Your task to perform on an android device: turn on sleep mode Image 0: 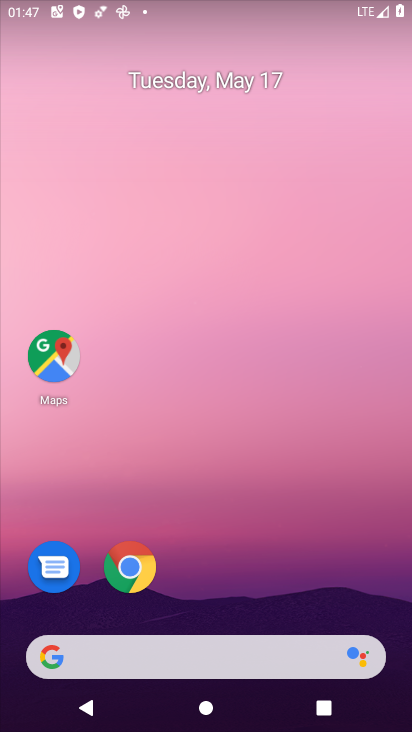
Step 0: drag from (398, 618) to (346, 13)
Your task to perform on an android device: turn on sleep mode Image 1: 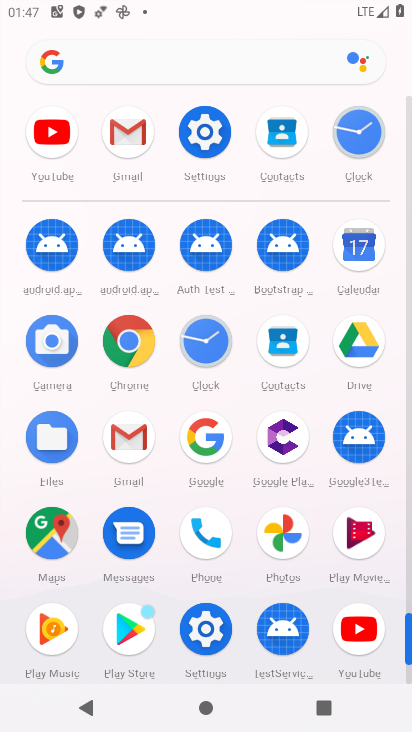
Step 1: click (207, 627)
Your task to perform on an android device: turn on sleep mode Image 2: 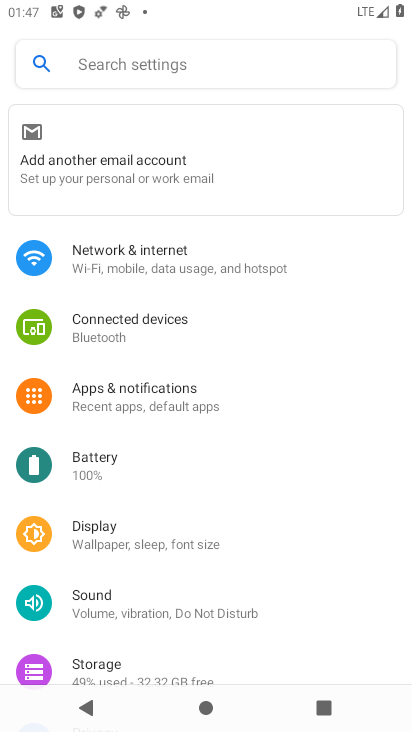
Step 2: click (97, 534)
Your task to perform on an android device: turn on sleep mode Image 3: 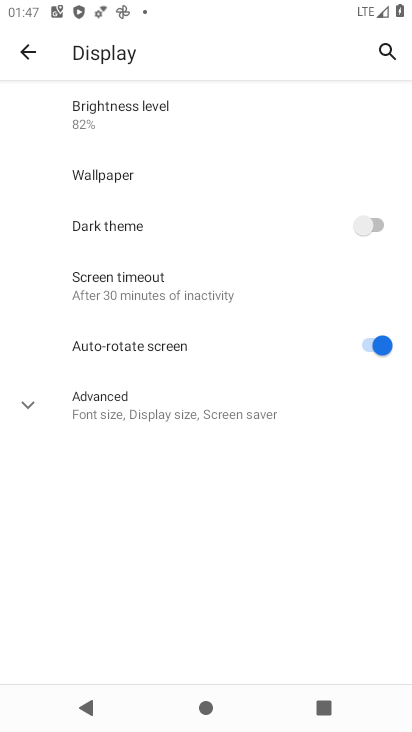
Step 3: click (29, 403)
Your task to perform on an android device: turn on sleep mode Image 4: 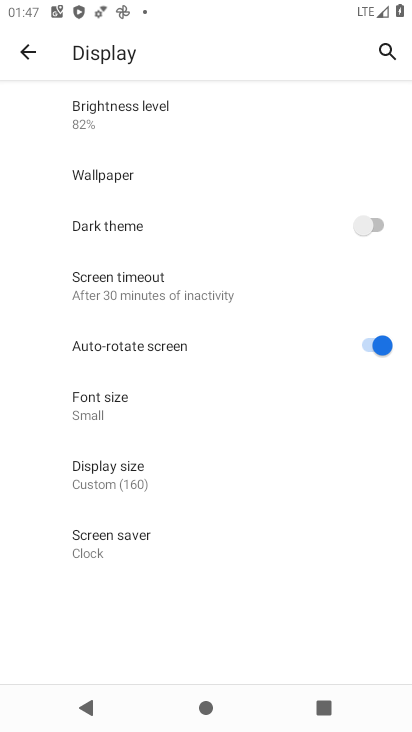
Step 4: task complete